Your task to perform on an android device: toggle notification dots Image 0: 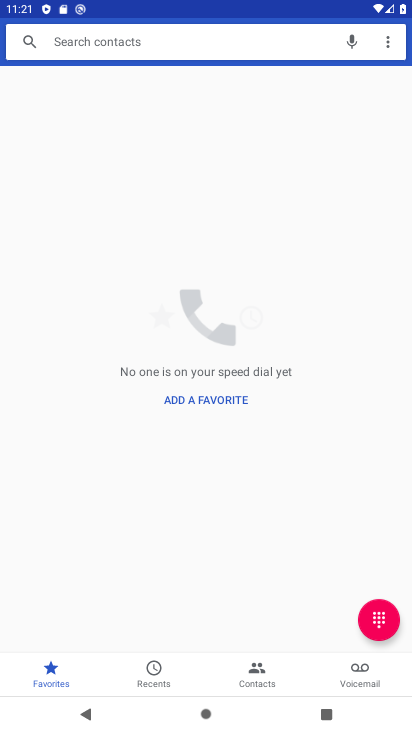
Step 0: task complete